Your task to perform on an android device: turn smart compose on in the gmail app Image 0: 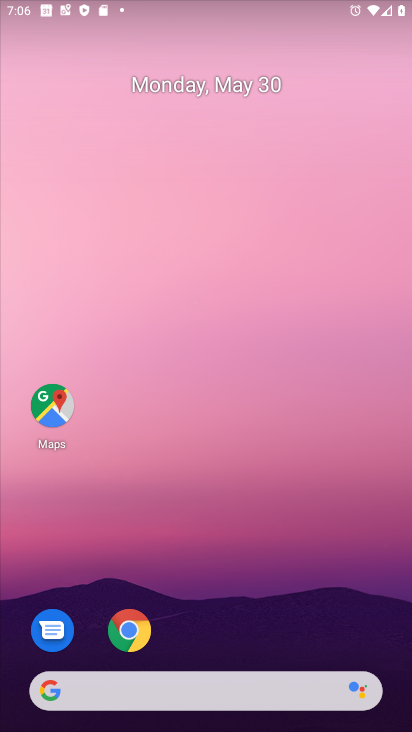
Step 0: drag from (331, 623) to (262, 17)
Your task to perform on an android device: turn smart compose on in the gmail app Image 1: 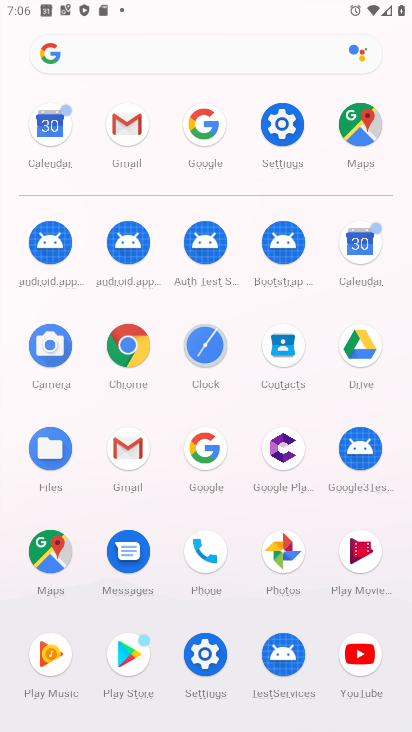
Step 1: click (124, 156)
Your task to perform on an android device: turn smart compose on in the gmail app Image 2: 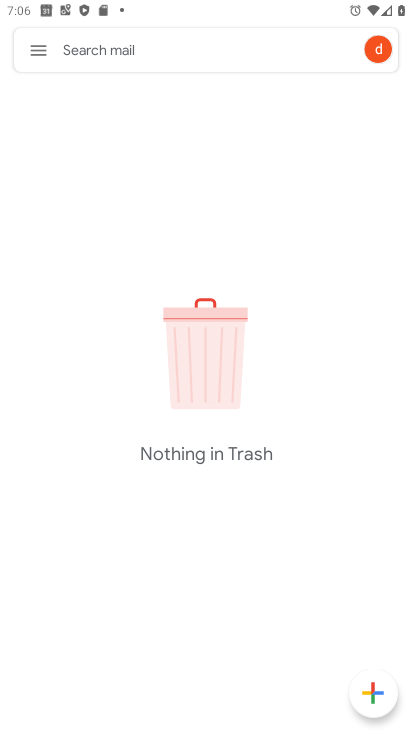
Step 2: click (38, 45)
Your task to perform on an android device: turn smart compose on in the gmail app Image 3: 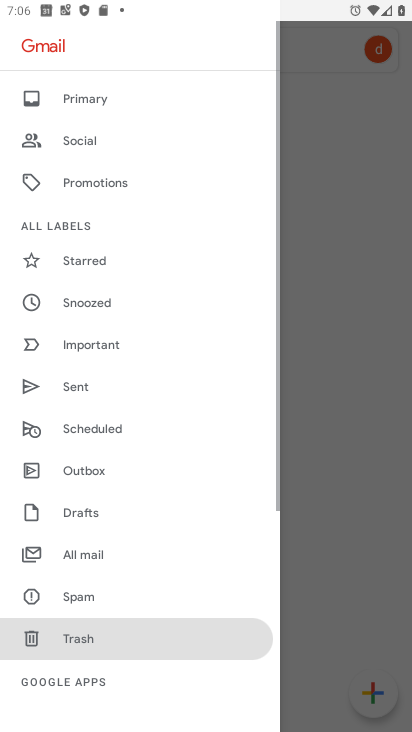
Step 3: drag from (106, 659) to (171, 24)
Your task to perform on an android device: turn smart compose on in the gmail app Image 4: 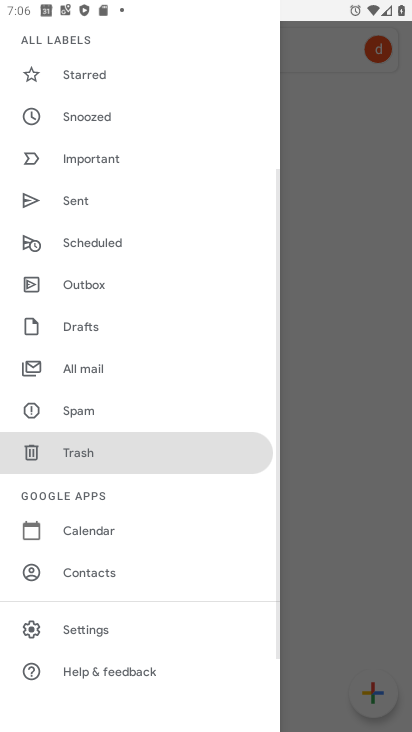
Step 4: click (98, 637)
Your task to perform on an android device: turn smart compose on in the gmail app Image 5: 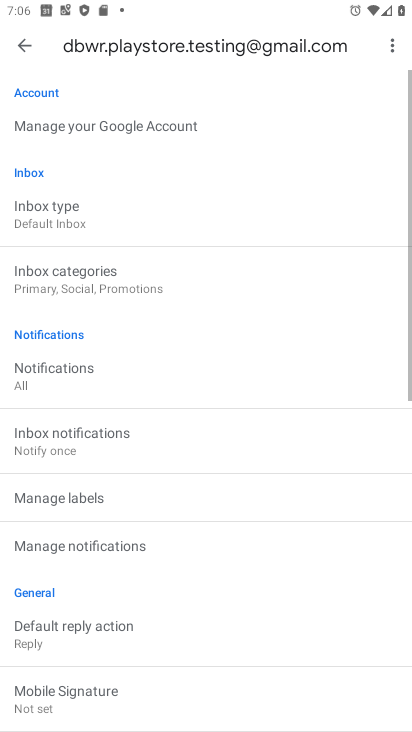
Step 5: task complete